Your task to perform on an android device: choose inbox layout in the gmail app Image 0: 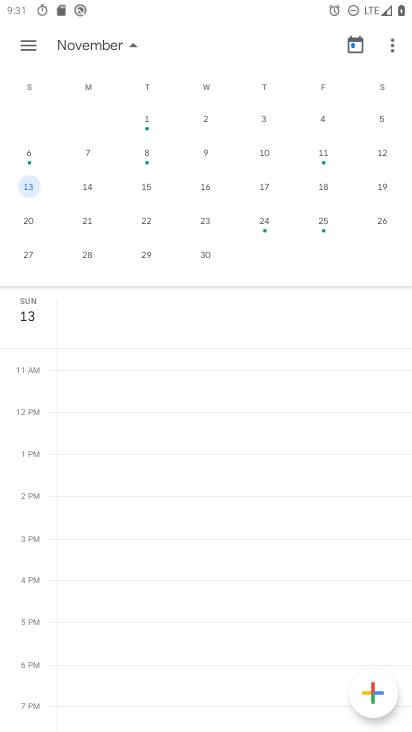
Step 0: press home button
Your task to perform on an android device: choose inbox layout in the gmail app Image 1: 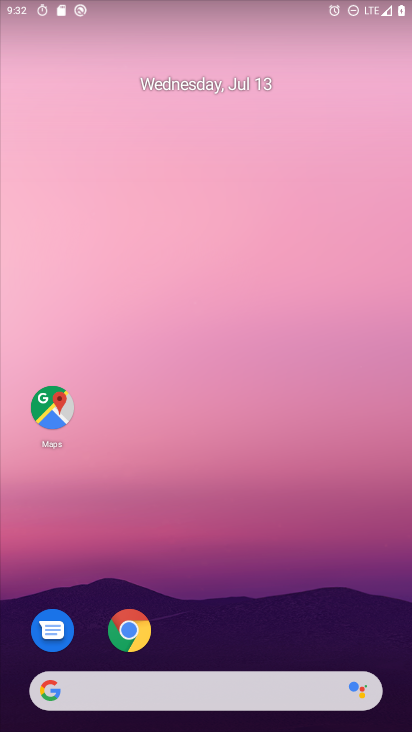
Step 1: drag from (321, 404) to (225, 12)
Your task to perform on an android device: choose inbox layout in the gmail app Image 2: 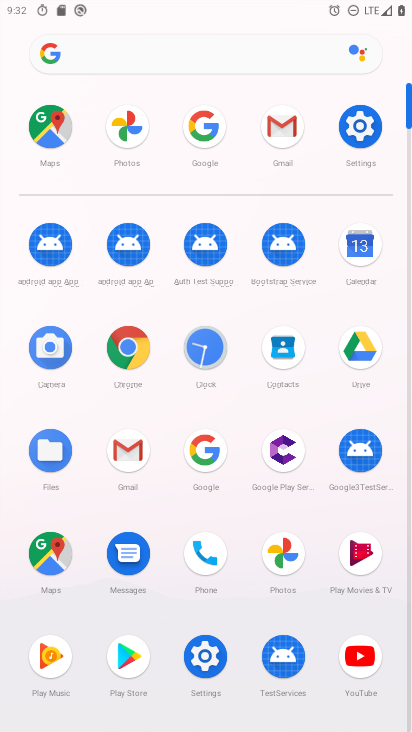
Step 2: click (119, 457)
Your task to perform on an android device: choose inbox layout in the gmail app Image 3: 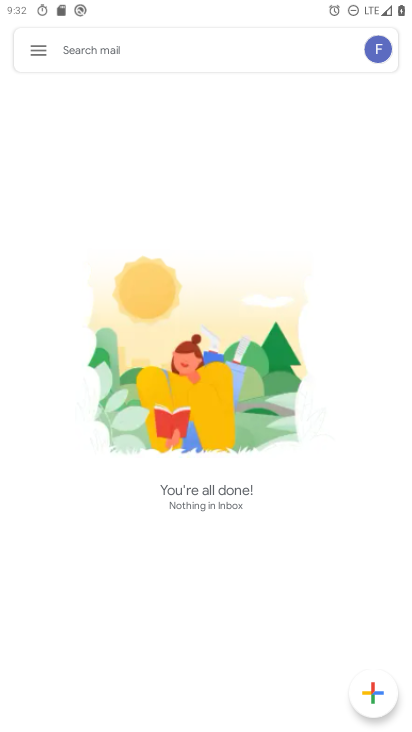
Step 3: task complete